Your task to perform on an android device: toggle sleep mode Image 0: 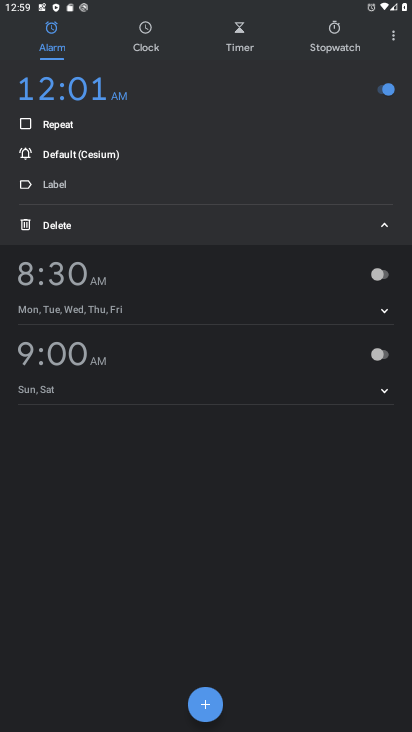
Step 0: press home button
Your task to perform on an android device: toggle sleep mode Image 1: 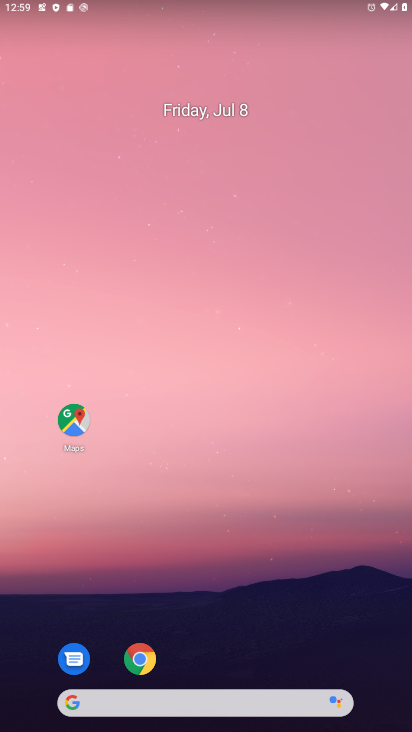
Step 1: drag from (194, 559) to (129, 122)
Your task to perform on an android device: toggle sleep mode Image 2: 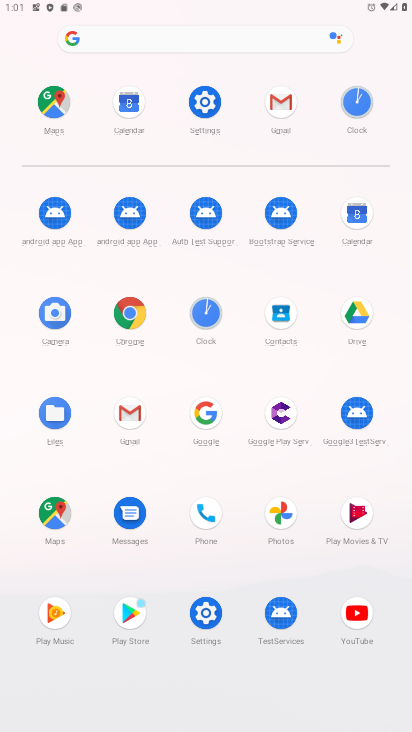
Step 2: click (211, 103)
Your task to perform on an android device: toggle sleep mode Image 3: 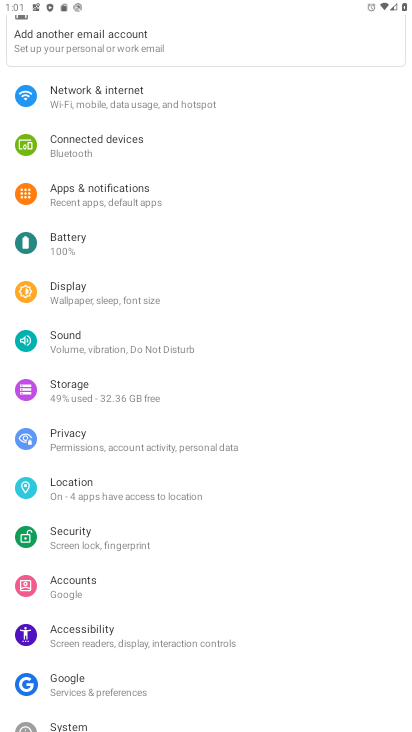
Step 3: click (71, 282)
Your task to perform on an android device: toggle sleep mode Image 4: 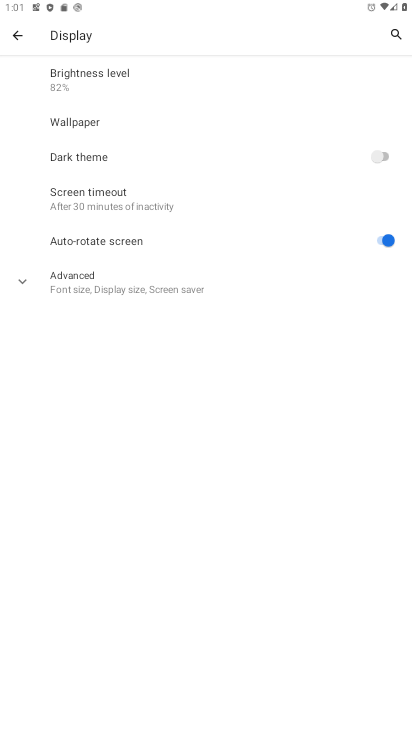
Step 4: task complete